Your task to perform on an android device: turn vacation reply on in the gmail app Image 0: 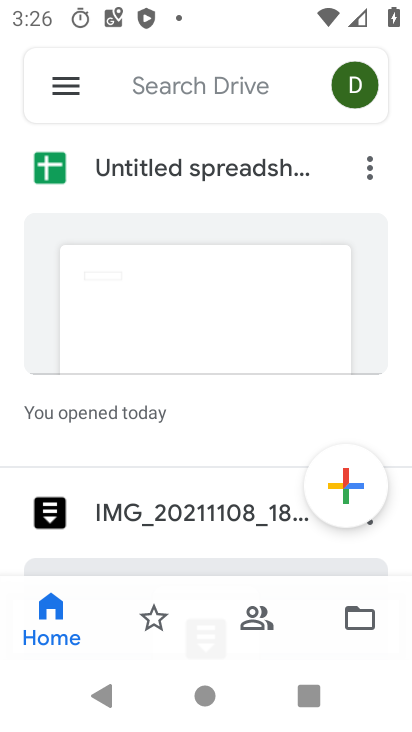
Step 0: press home button
Your task to perform on an android device: turn vacation reply on in the gmail app Image 1: 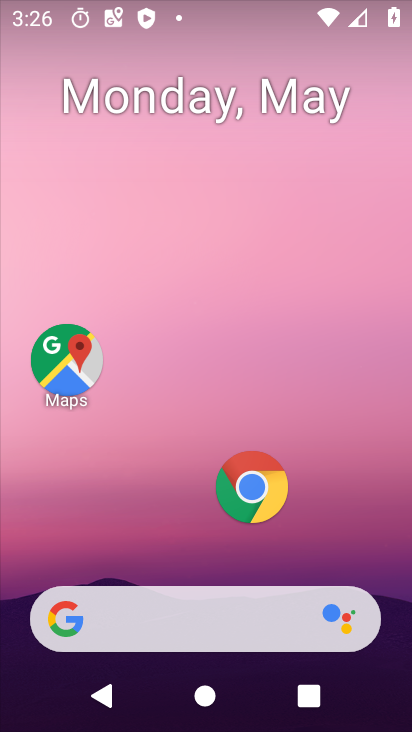
Step 1: drag from (190, 559) to (189, 48)
Your task to perform on an android device: turn vacation reply on in the gmail app Image 2: 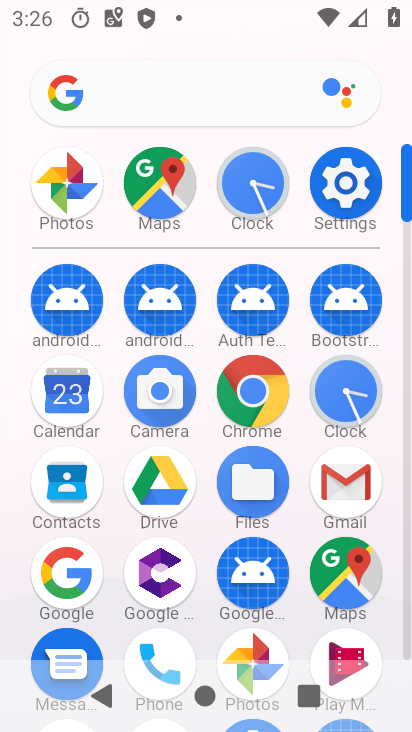
Step 2: click (343, 508)
Your task to perform on an android device: turn vacation reply on in the gmail app Image 3: 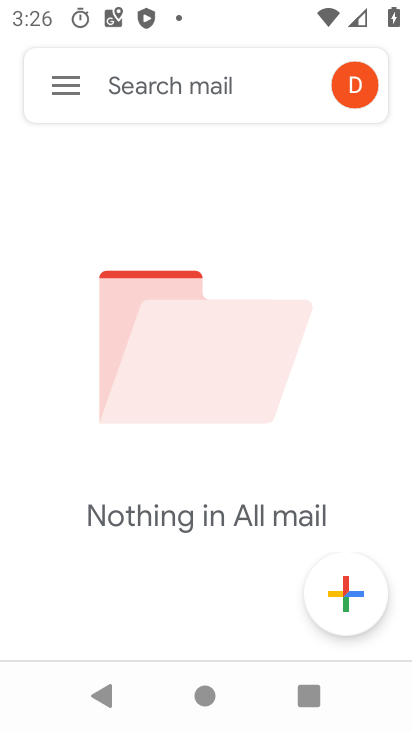
Step 3: click (69, 83)
Your task to perform on an android device: turn vacation reply on in the gmail app Image 4: 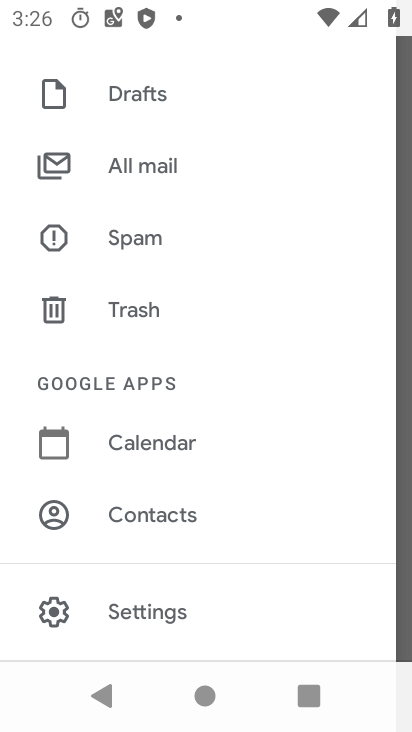
Step 4: click (201, 610)
Your task to perform on an android device: turn vacation reply on in the gmail app Image 5: 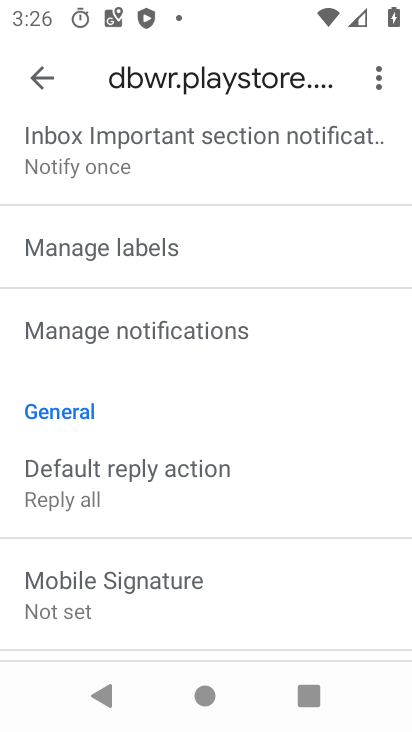
Step 5: drag from (133, 631) to (149, 345)
Your task to perform on an android device: turn vacation reply on in the gmail app Image 6: 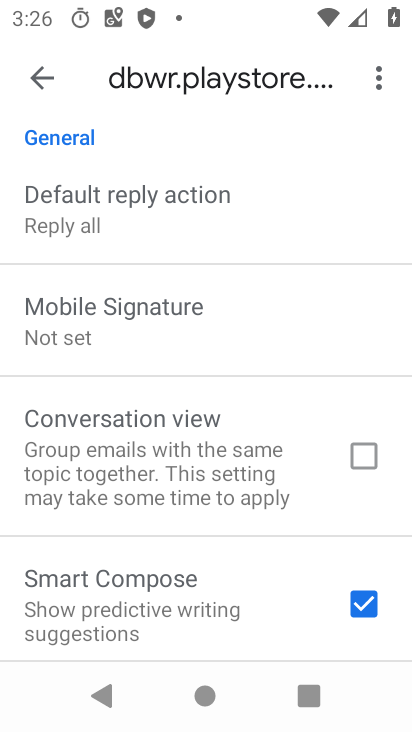
Step 6: drag from (162, 605) to (181, 307)
Your task to perform on an android device: turn vacation reply on in the gmail app Image 7: 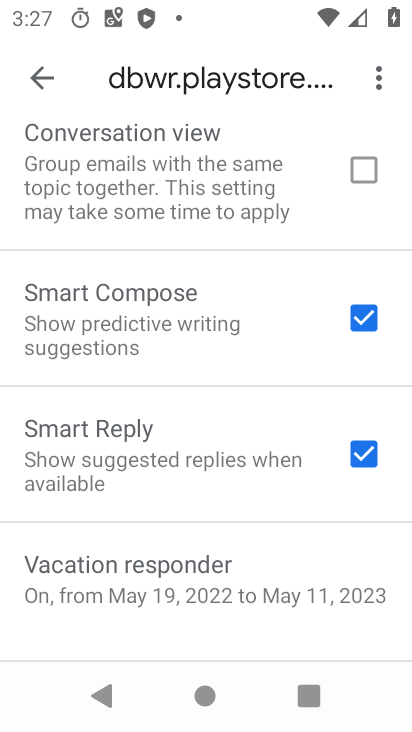
Step 7: click (197, 588)
Your task to perform on an android device: turn vacation reply on in the gmail app Image 8: 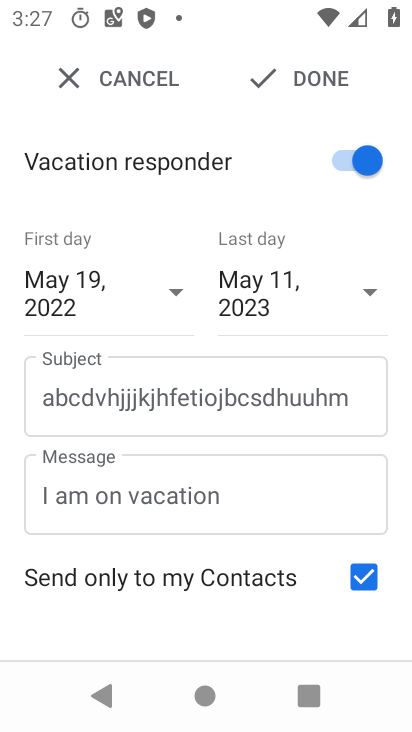
Step 8: click (350, 66)
Your task to perform on an android device: turn vacation reply on in the gmail app Image 9: 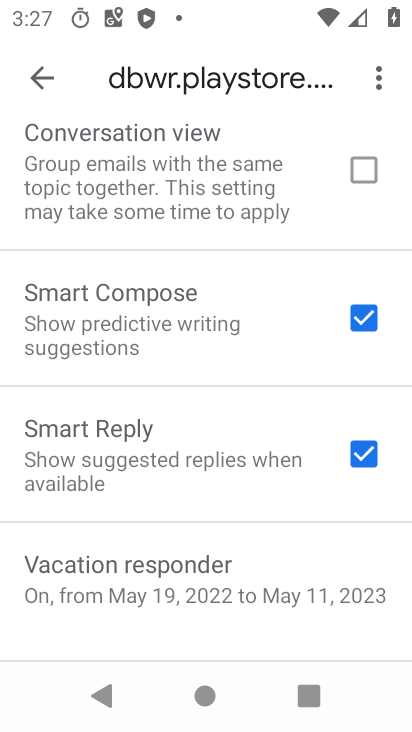
Step 9: task complete